Your task to perform on an android device: Look up the best selling patio furniture on Home Depot Image 0: 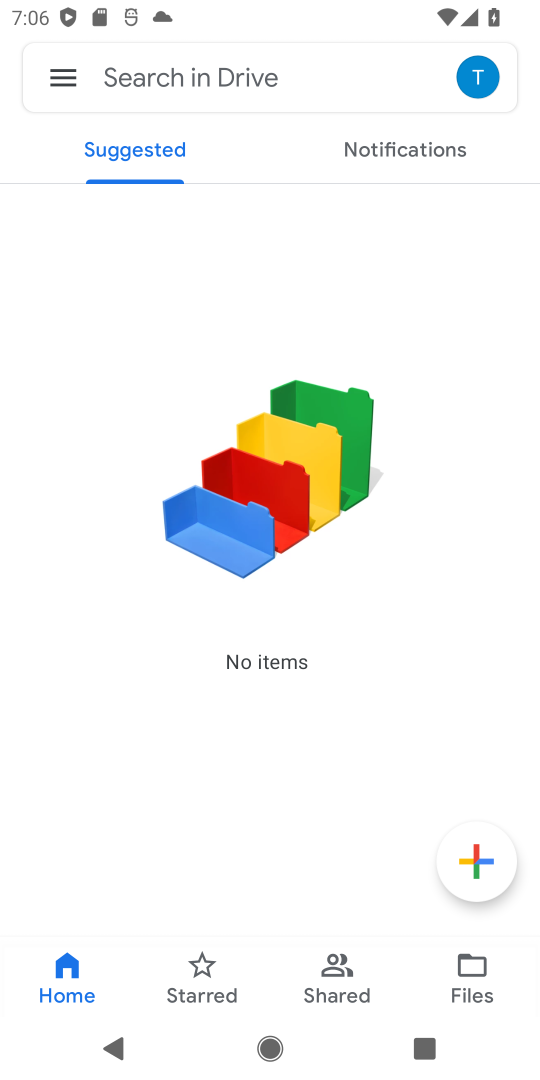
Step 0: press home button
Your task to perform on an android device: Look up the best selling patio furniture on Home Depot Image 1: 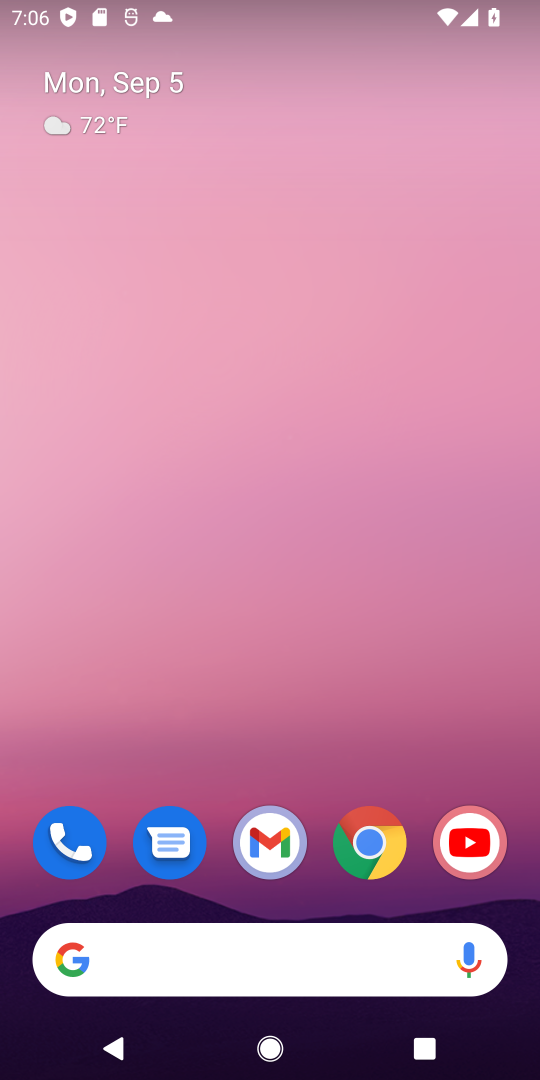
Step 1: click (371, 841)
Your task to perform on an android device: Look up the best selling patio furniture on Home Depot Image 2: 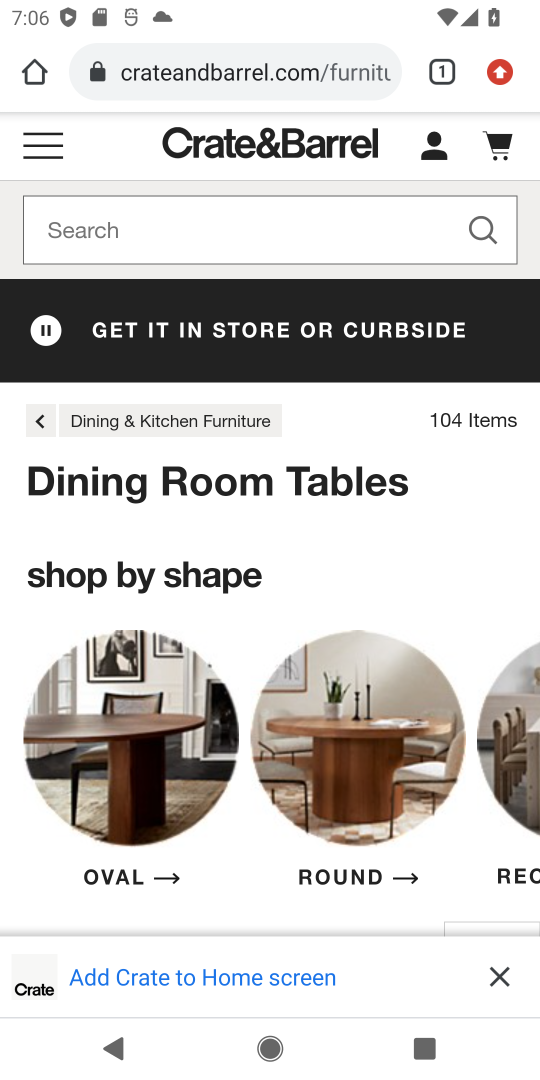
Step 2: click (357, 75)
Your task to perform on an android device: Look up the best selling patio furniture on Home Depot Image 3: 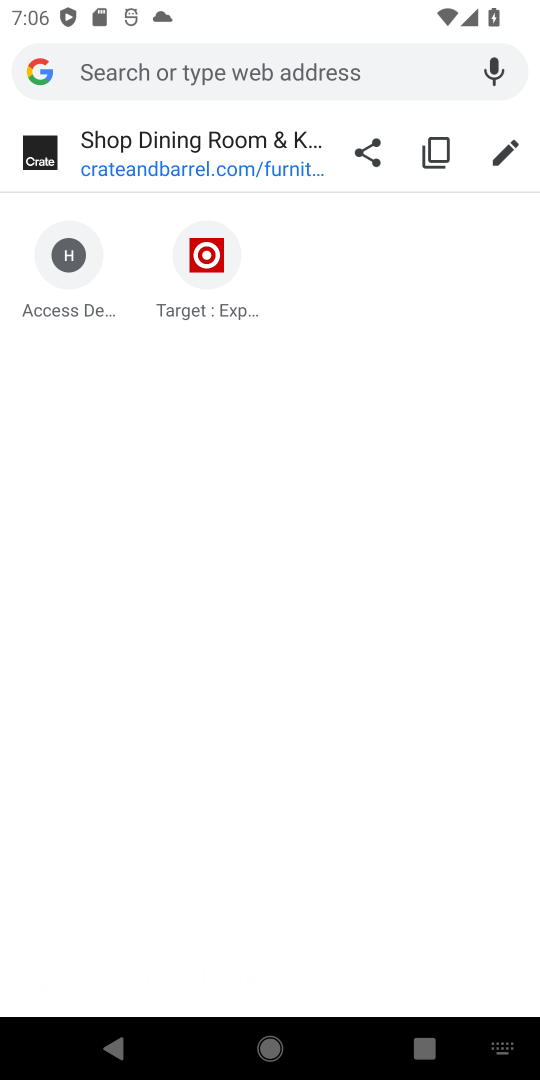
Step 3: type "Home Depot"
Your task to perform on an android device: Look up the best selling patio furniture on Home Depot Image 4: 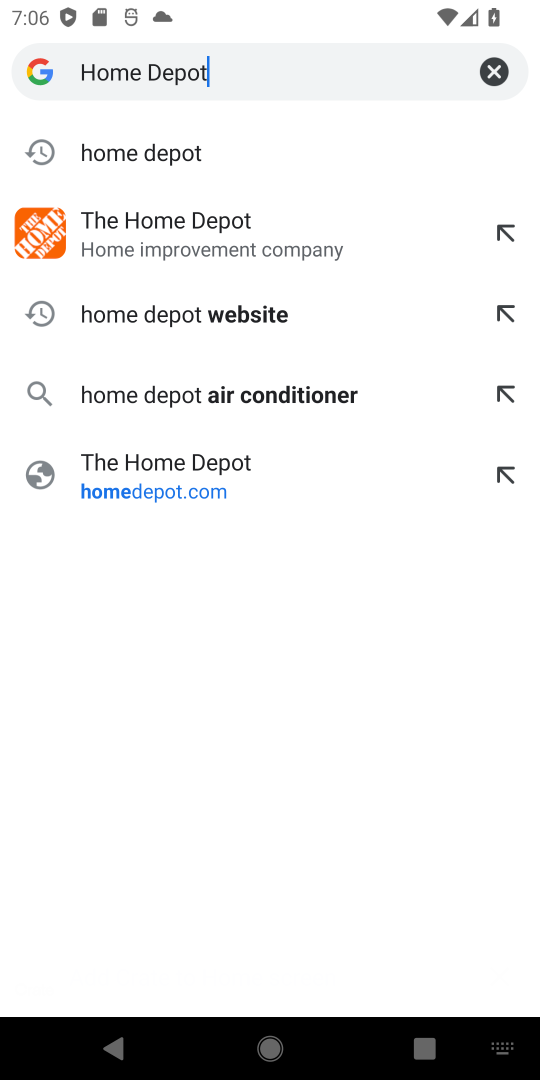
Step 4: click (191, 233)
Your task to perform on an android device: Look up the best selling patio furniture on Home Depot Image 5: 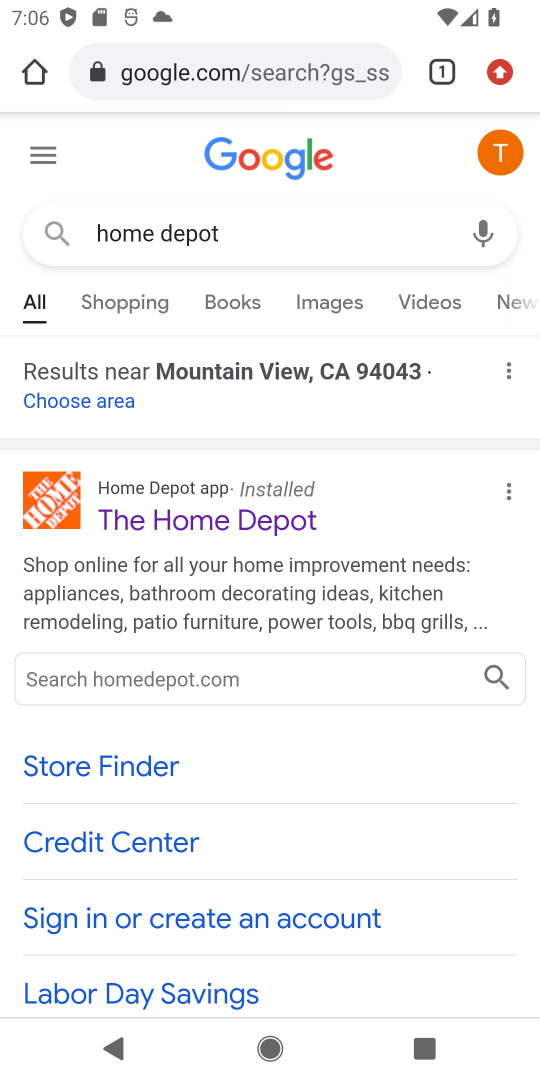
Step 5: click (301, 533)
Your task to perform on an android device: Look up the best selling patio furniture on Home Depot Image 6: 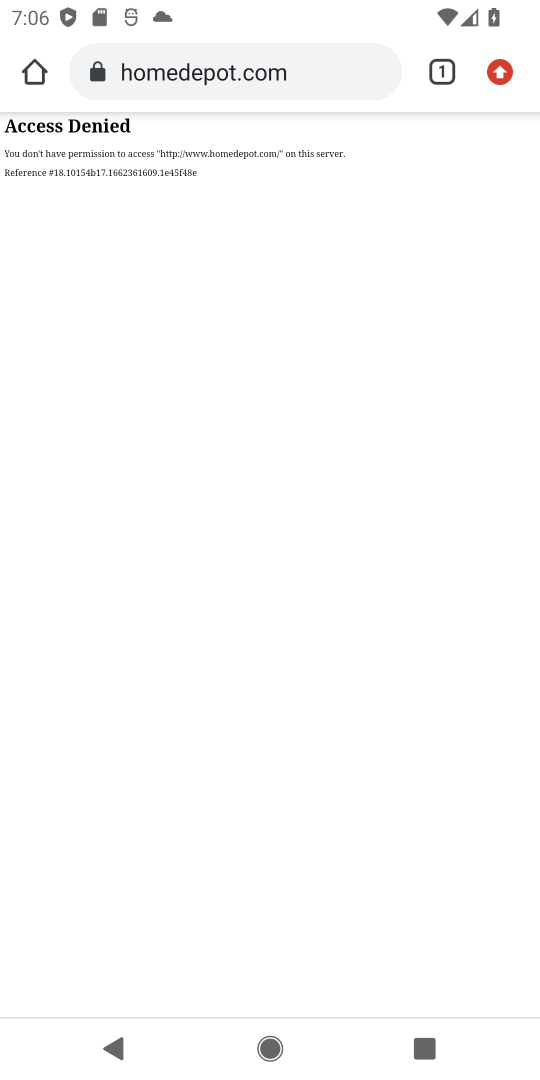
Step 6: task complete